Your task to perform on an android device: Open wifi settings Image 0: 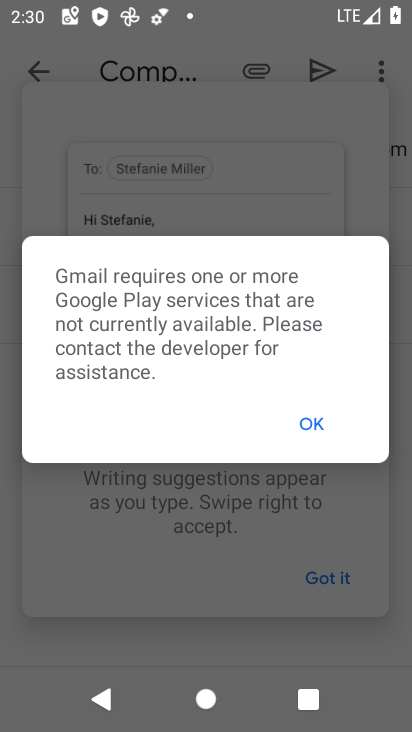
Step 0: press home button
Your task to perform on an android device: Open wifi settings Image 1: 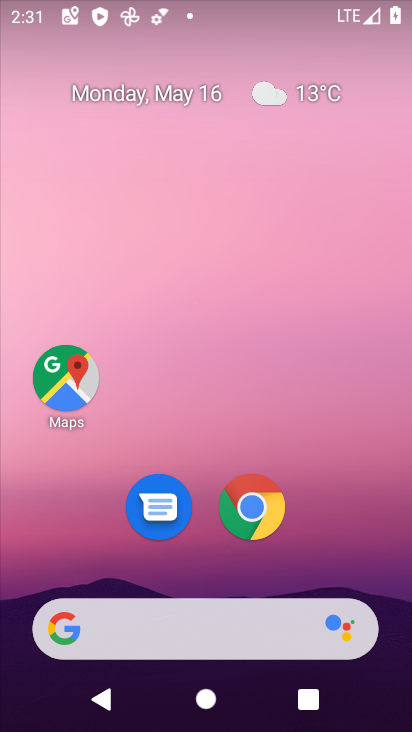
Step 1: drag from (308, 390) to (227, 64)
Your task to perform on an android device: Open wifi settings Image 2: 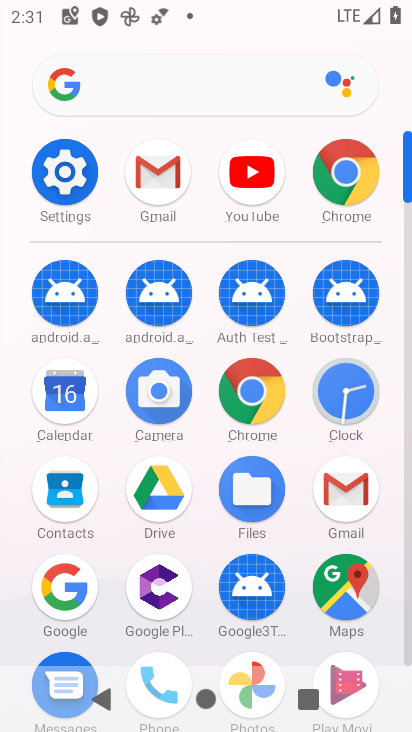
Step 2: click (61, 170)
Your task to perform on an android device: Open wifi settings Image 3: 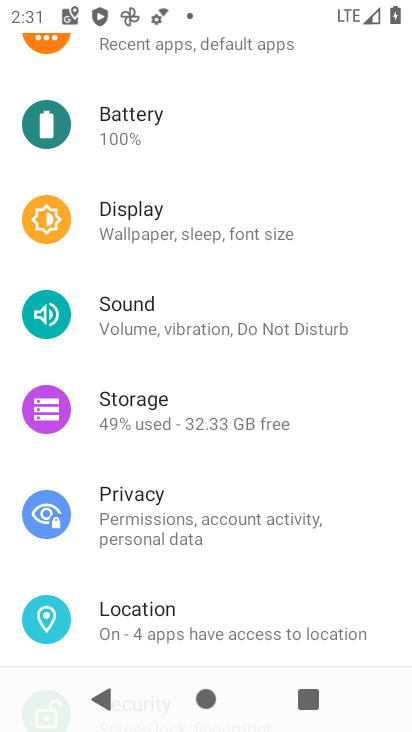
Step 3: drag from (249, 399) to (312, 661)
Your task to perform on an android device: Open wifi settings Image 4: 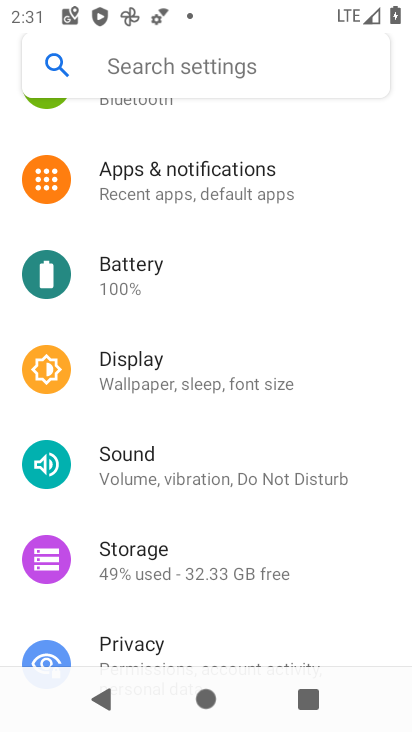
Step 4: drag from (207, 154) to (311, 528)
Your task to perform on an android device: Open wifi settings Image 5: 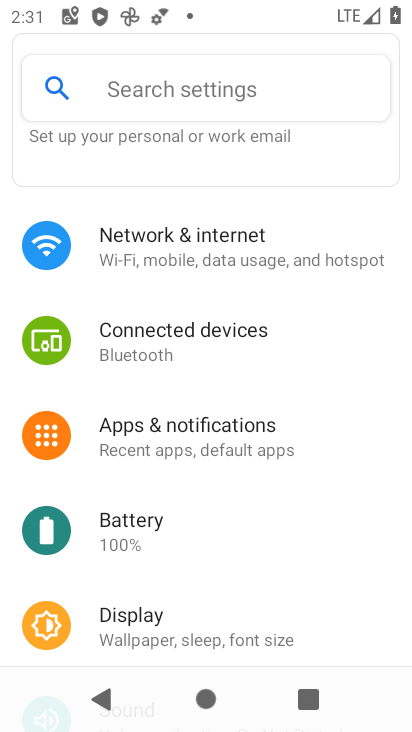
Step 5: click (171, 263)
Your task to perform on an android device: Open wifi settings Image 6: 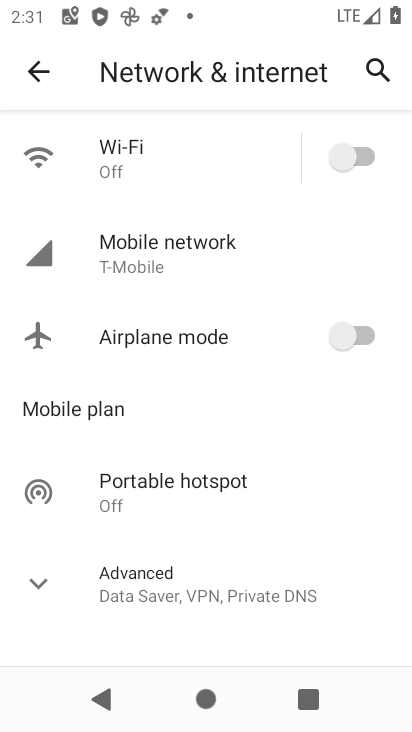
Step 6: click (173, 150)
Your task to perform on an android device: Open wifi settings Image 7: 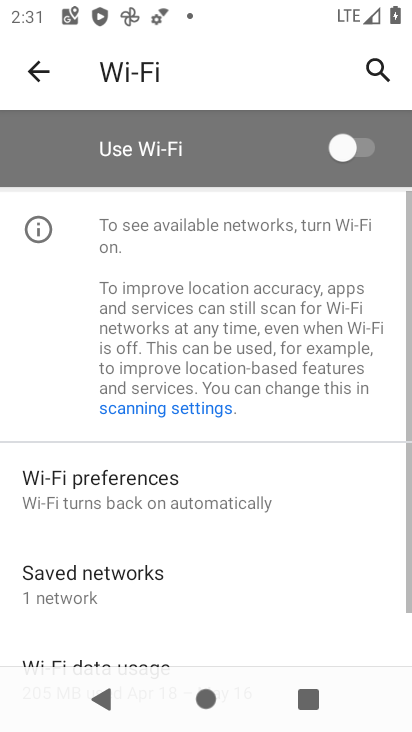
Step 7: task complete